Your task to perform on an android device: install app "Spotify" Image 0: 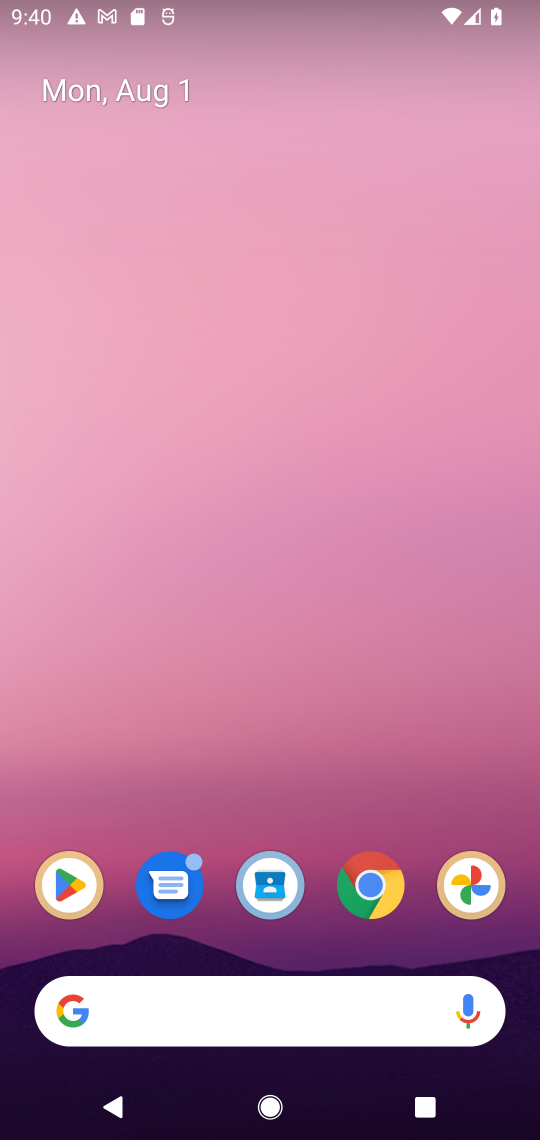
Step 0: drag from (303, 1131) to (306, 102)
Your task to perform on an android device: install app "Spotify" Image 1: 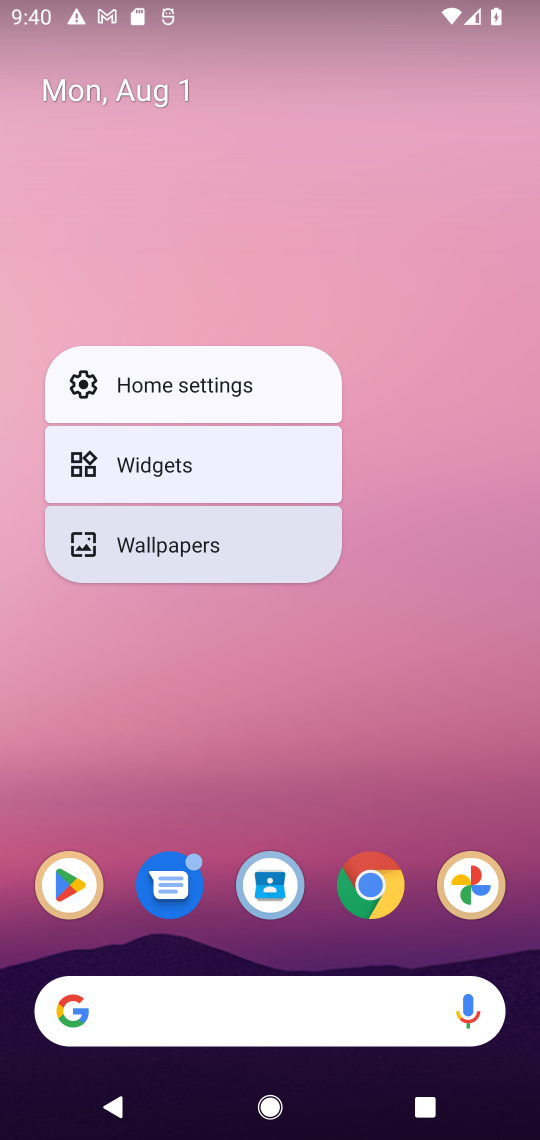
Step 1: click (197, 667)
Your task to perform on an android device: install app "Spotify" Image 2: 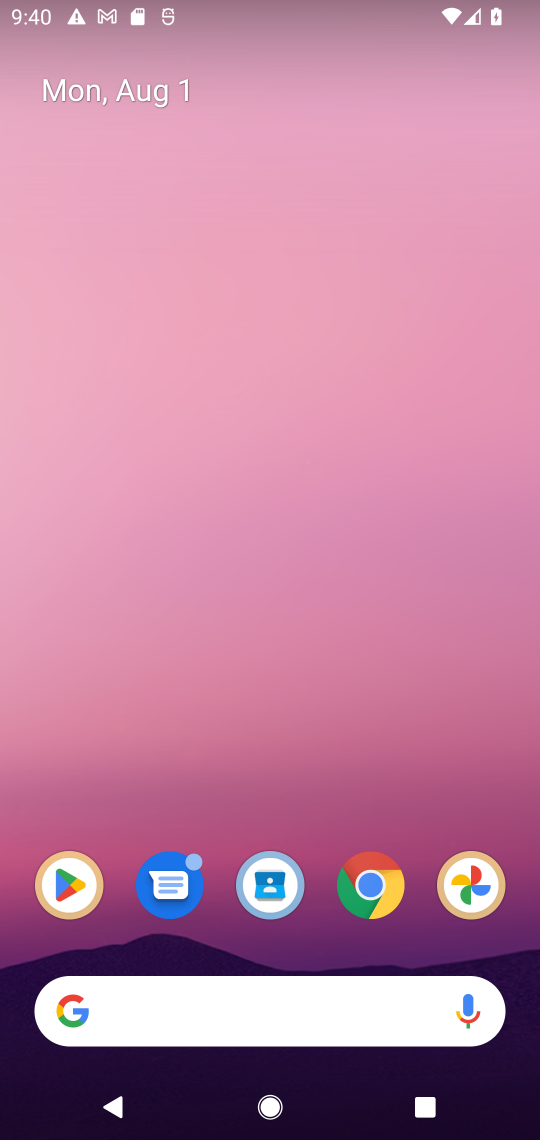
Step 2: drag from (329, 1107) to (296, 14)
Your task to perform on an android device: install app "Spotify" Image 3: 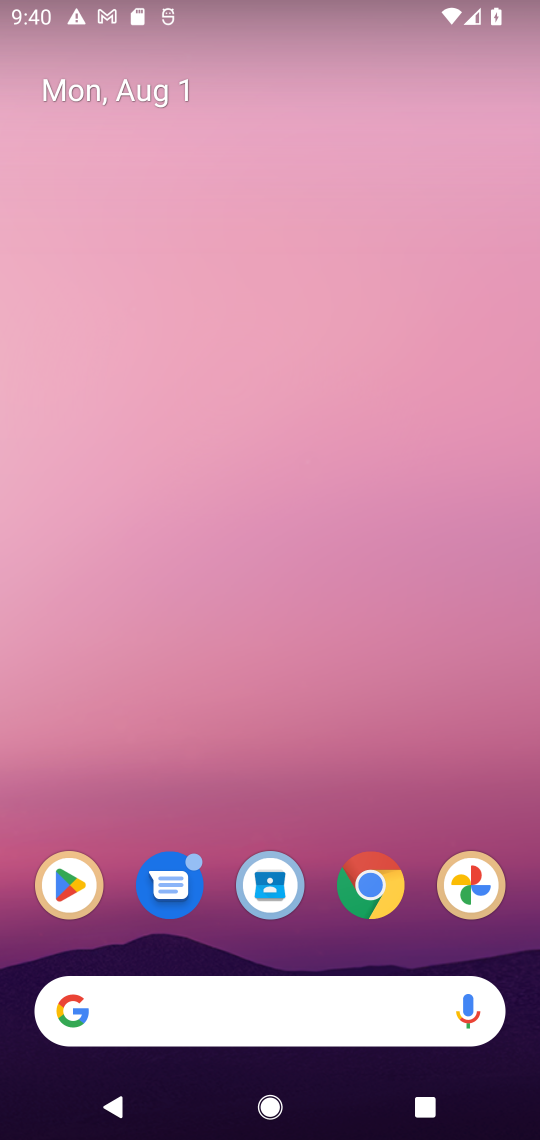
Step 3: drag from (303, 1038) to (279, 219)
Your task to perform on an android device: install app "Spotify" Image 4: 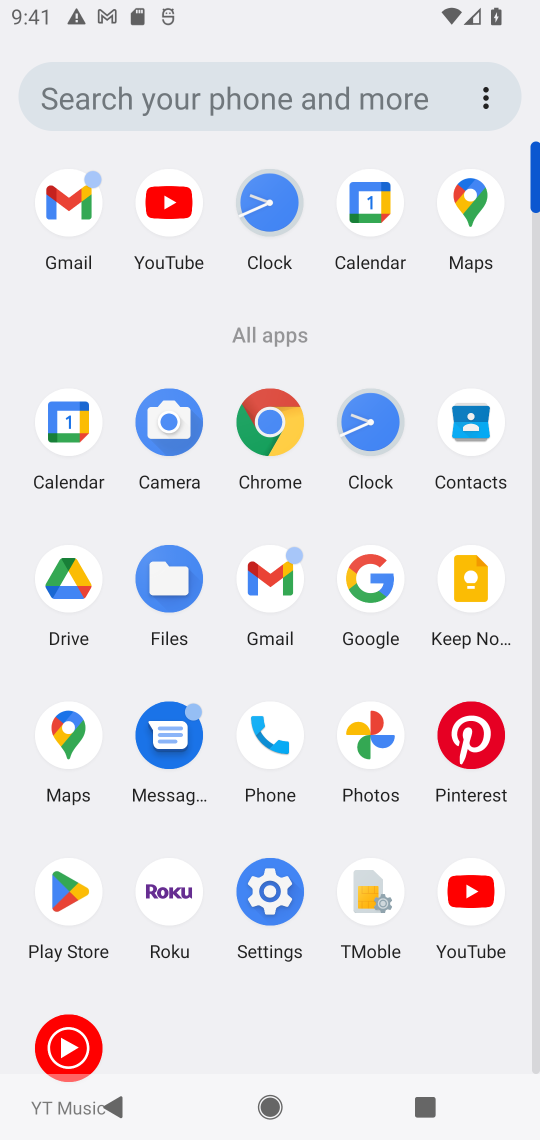
Step 4: click (57, 892)
Your task to perform on an android device: install app "Spotify" Image 5: 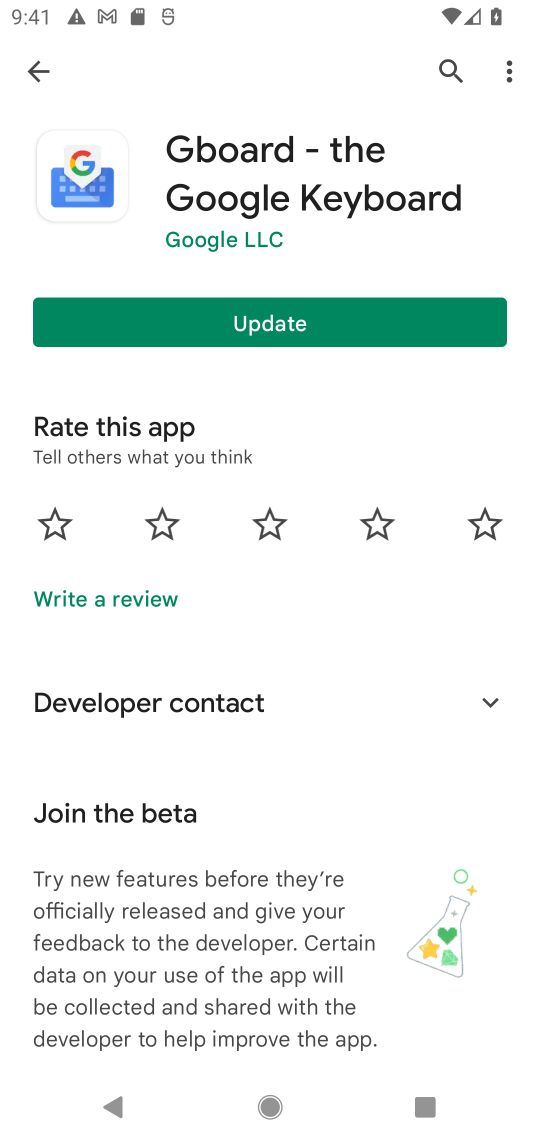
Step 5: click (448, 67)
Your task to perform on an android device: install app "Spotify" Image 6: 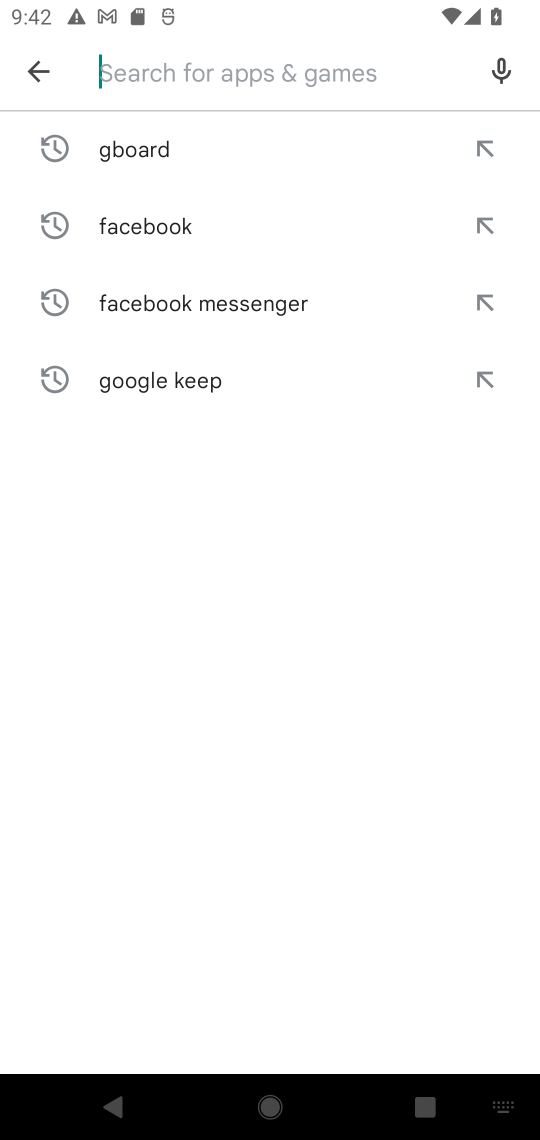
Step 6: type "Spotify"
Your task to perform on an android device: install app "Spotify" Image 7: 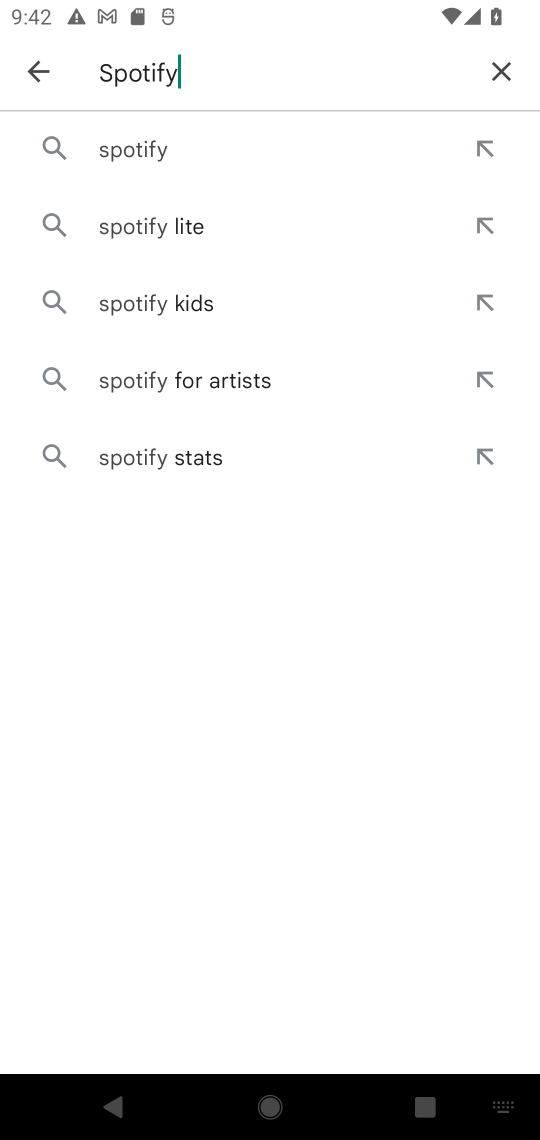
Step 7: click (152, 157)
Your task to perform on an android device: install app "Spotify" Image 8: 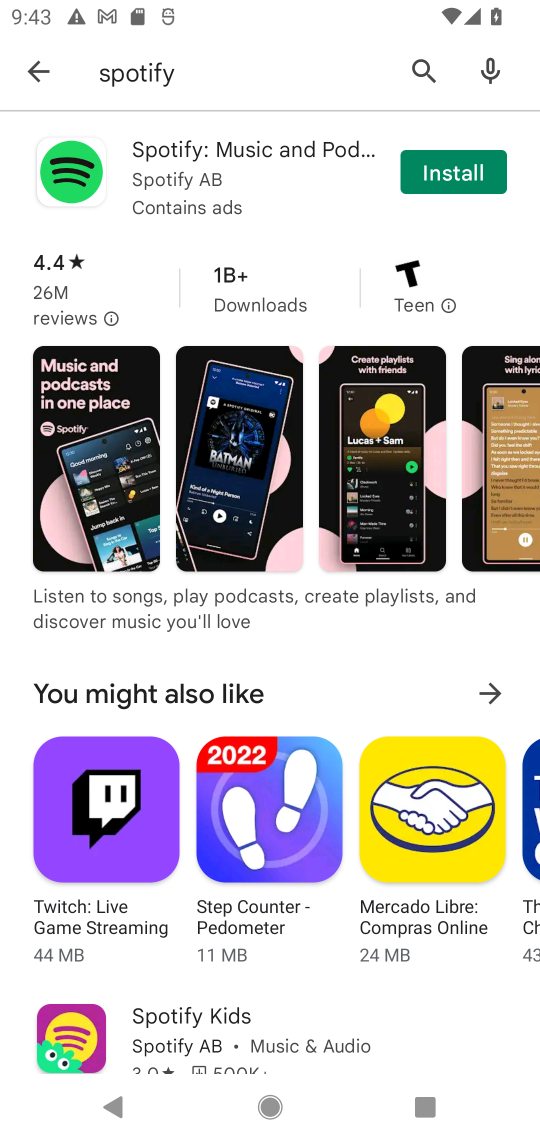
Step 8: click (452, 167)
Your task to perform on an android device: install app "Spotify" Image 9: 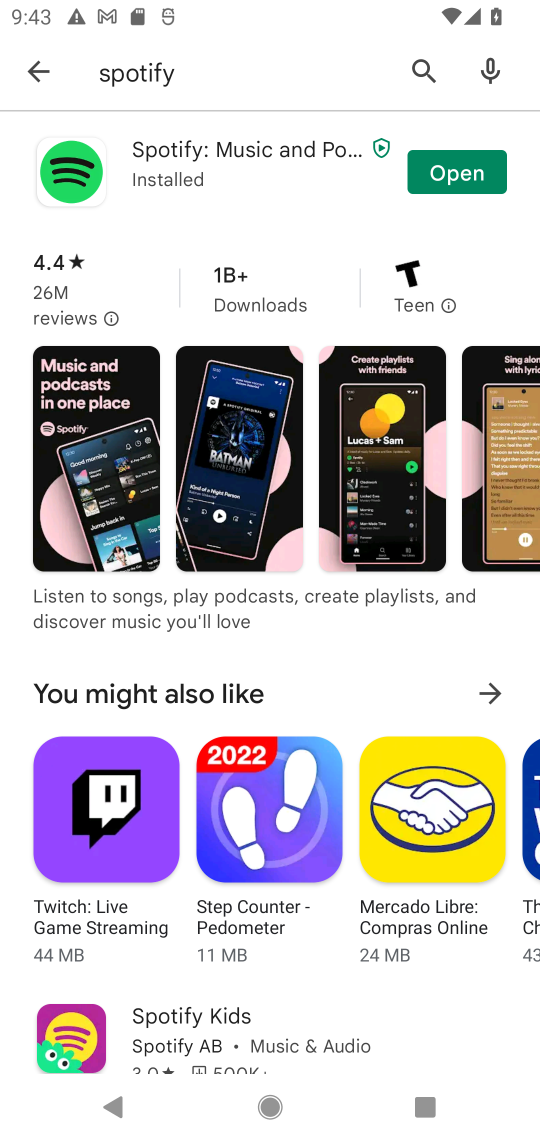
Step 9: task complete